Your task to perform on an android device: turn off sleep mode Image 0: 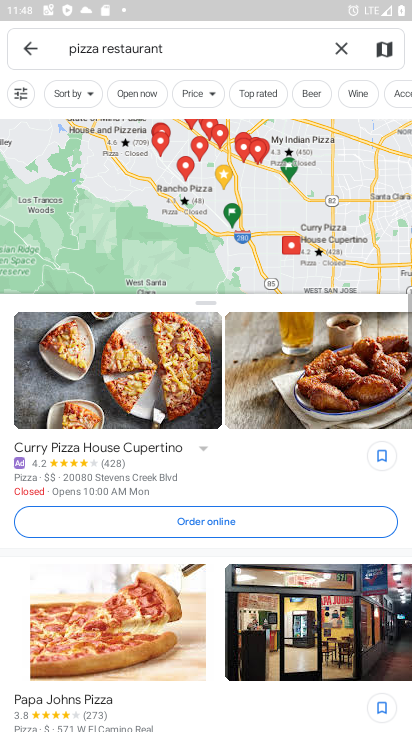
Step 0: press home button
Your task to perform on an android device: turn off sleep mode Image 1: 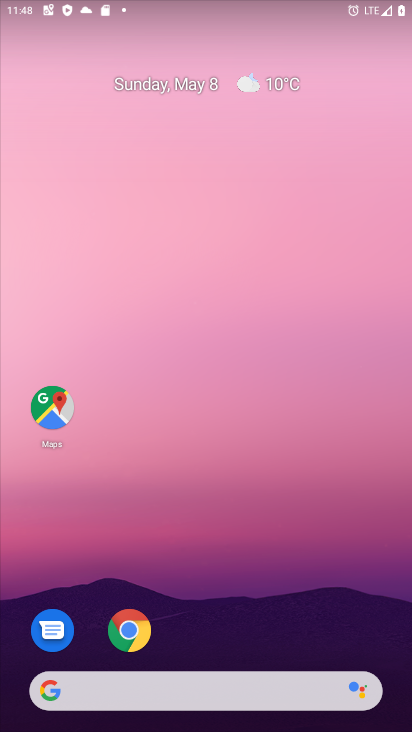
Step 1: drag from (337, 620) to (210, 73)
Your task to perform on an android device: turn off sleep mode Image 2: 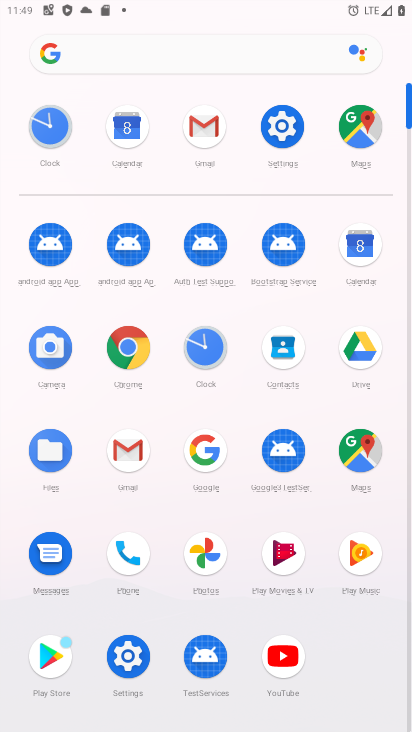
Step 2: click (276, 122)
Your task to perform on an android device: turn off sleep mode Image 3: 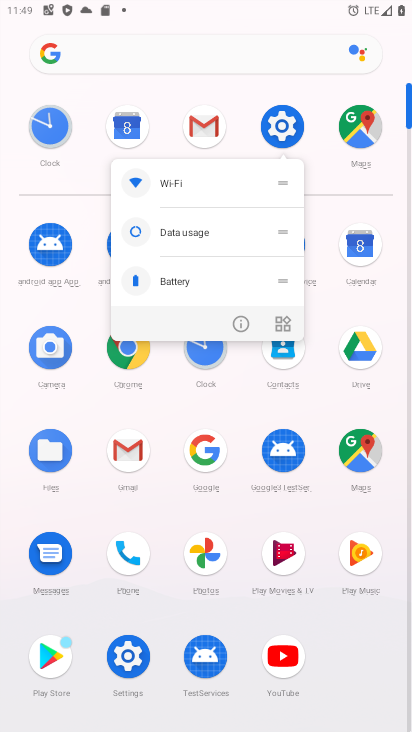
Step 3: click (276, 122)
Your task to perform on an android device: turn off sleep mode Image 4: 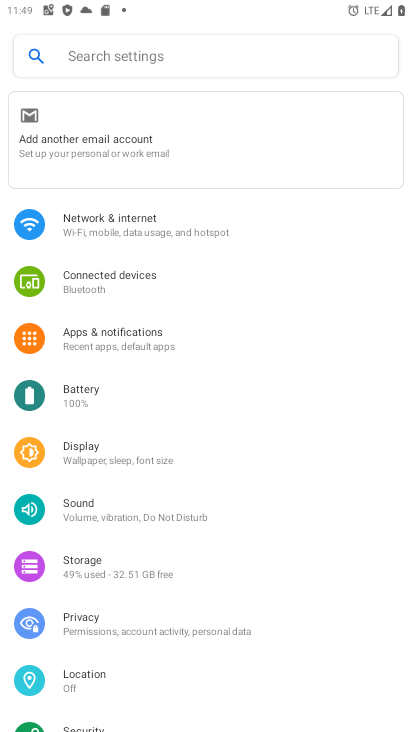
Step 4: task complete